Your task to perform on an android device: Search for Italian restaurants on Maps Image 0: 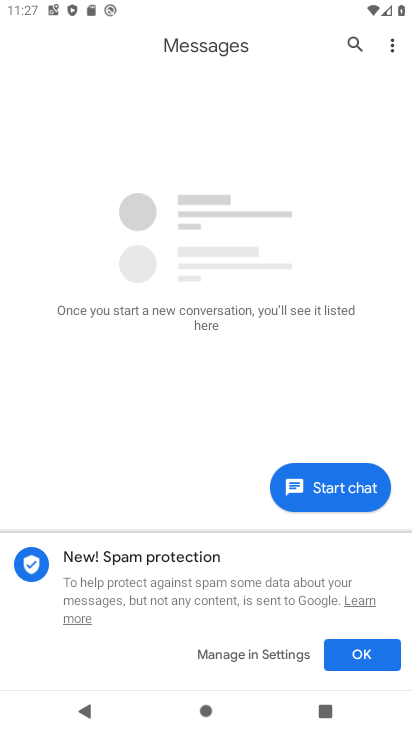
Step 0: press home button
Your task to perform on an android device: Search for Italian restaurants on Maps Image 1: 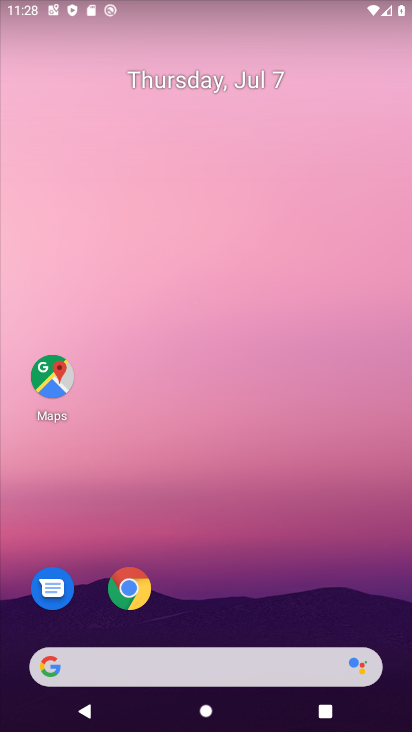
Step 1: drag from (231, 628) to (227, 117)
Your task to perform on an android device: Search for Italian restaurants on Maps Image 2: 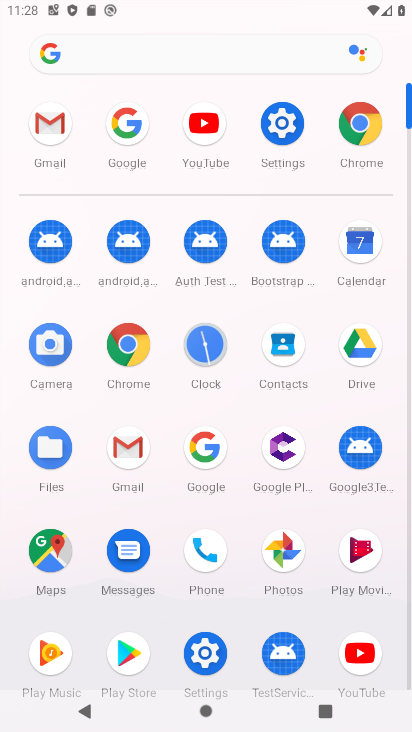
Step 2: click (54, 552)
Your task to perform on an android device: Search for Italian restaurants on Maps Image 3: 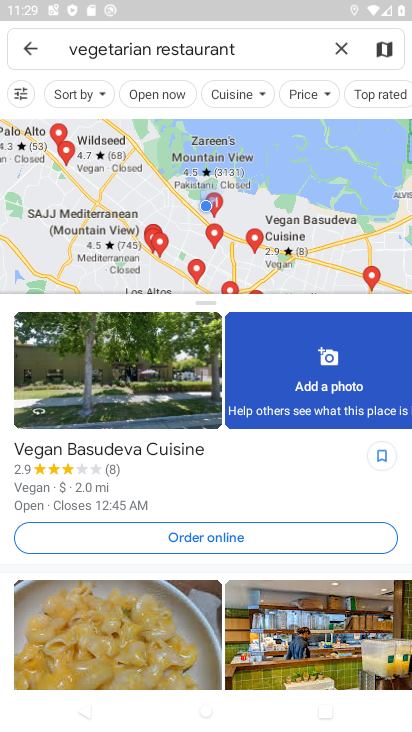
Step 3: click (332, 46)
Your task to perform on an android device: Search for Italian restaurants on Maps Image 4: 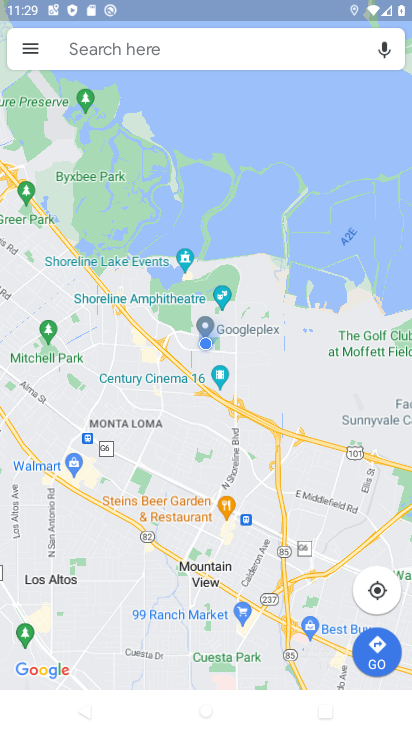
Step 4: click (168, 49)
Your task to perform on an android device: Search for Italian restaurants on Maps Image 5: 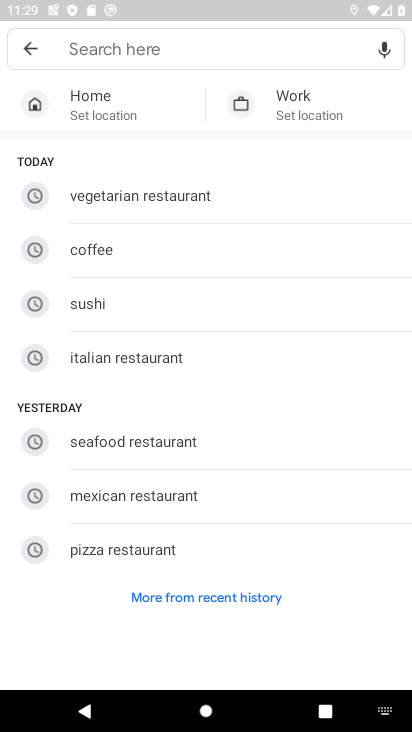
Step 5: type " Italian restaurants"
Your task to perform on an android device: Search for Italian restaurants on Maps Image 6: 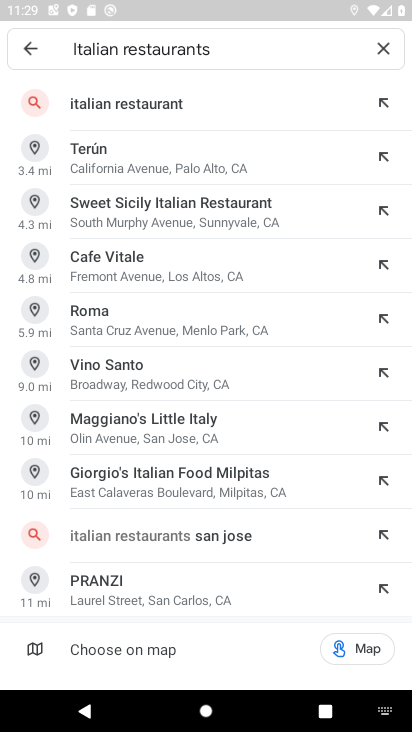
Step 6: click (163, 98)
Your task to perform on an android device: Search for Italian restaurants on Maps Image 7: 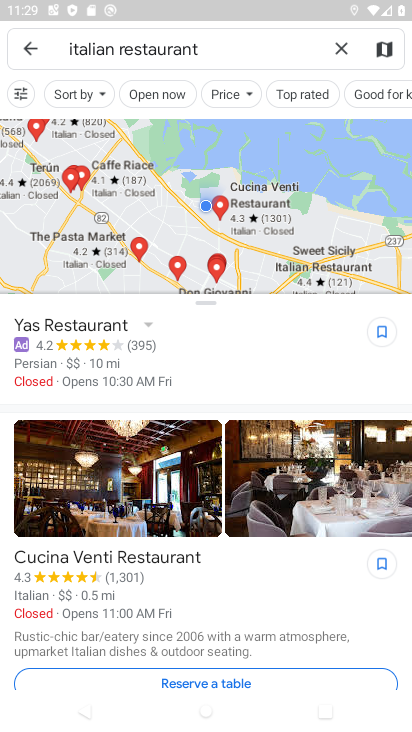
Step 7: task complete